Your task to perform on an android device: Go to battery settings Image 0: 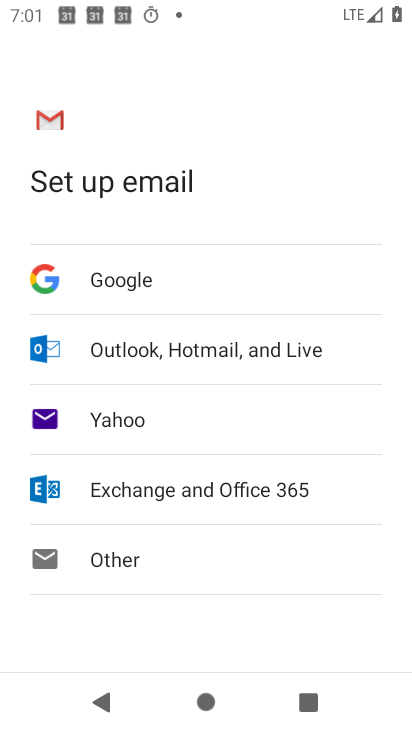
Step 0: press home button
Your task to perform on an android device: Go to battery settings Image 1: 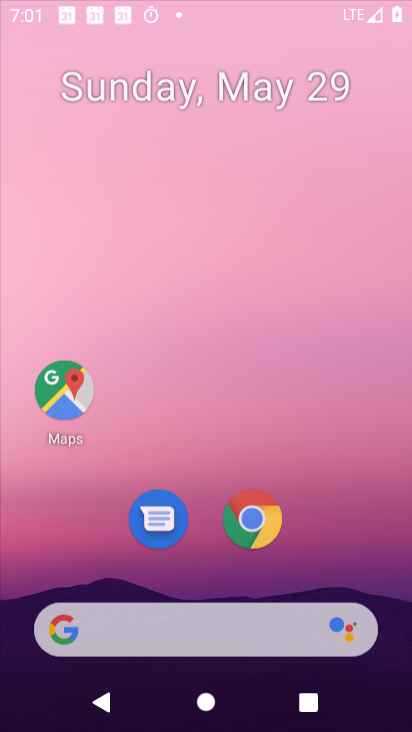
Step 1: drag from (327, 631) to (297, 2)
Your task to perform on an android device: Go to battery settings Image 2: 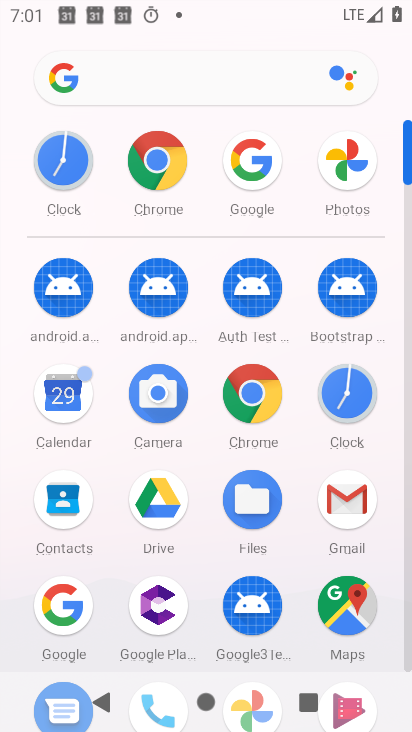
Step 2: drag from (205, 583) to (225, 99)
Your task to perform on an android device: Go to battery settings Image 3: 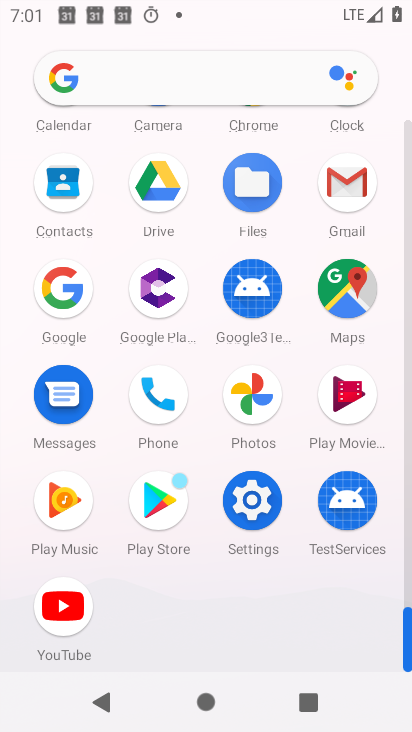
Step 3: click (233, 517)
Your task to perform on an android device: Go to battery settings Image 4: 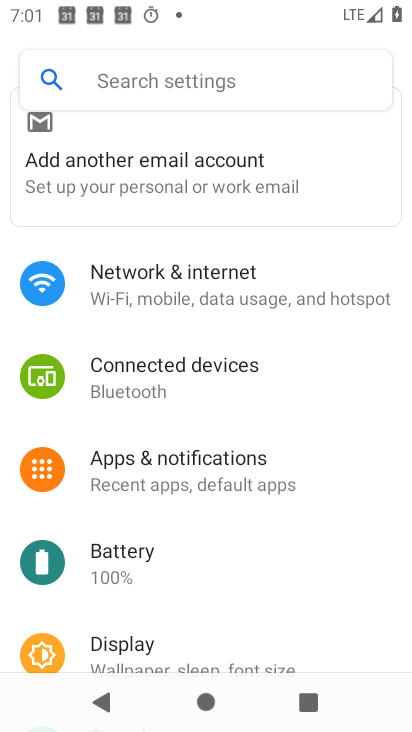
Step 4: click (148, 555)
Your task to perform on an android device: Go to battery settings Image 5: 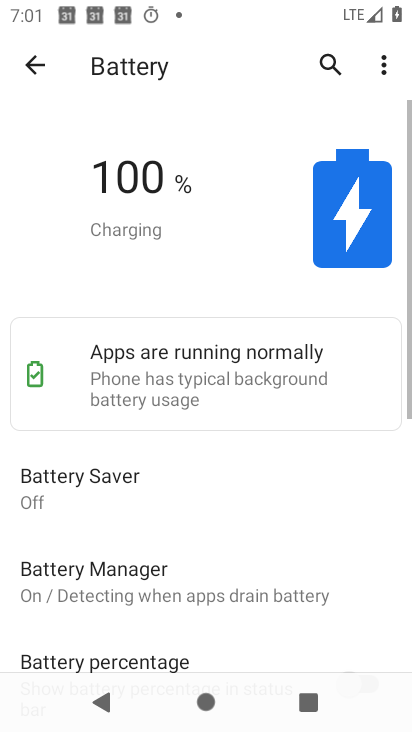
Step 5: task complete